Your task to perform on an android device: turn on bluetooth scan Image 0: 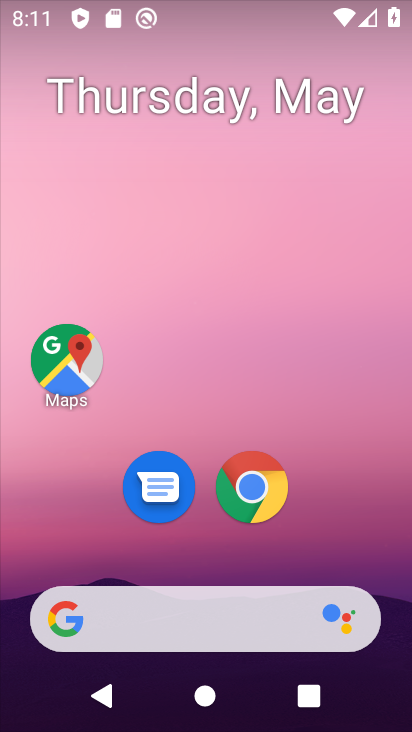
Step 0: drag from (362, 562) to (229, 1)
Your task to perform on an android device: turn on bluetooth scan Image 1: 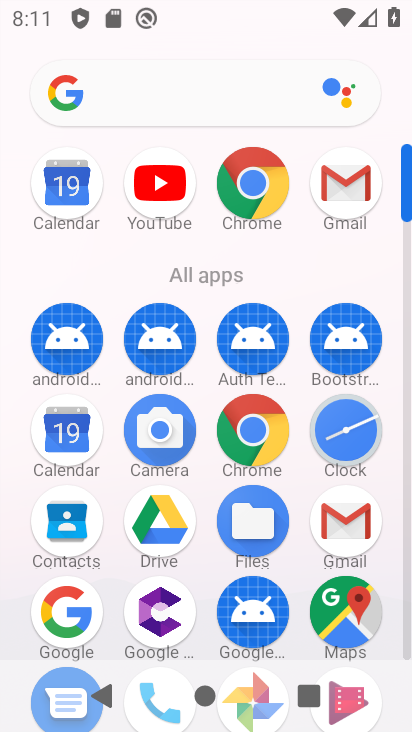
Step 1: drag from (203, 512) to (175, 7)
Your task to perform on an android device: turn on bluetooth scan Image 2: 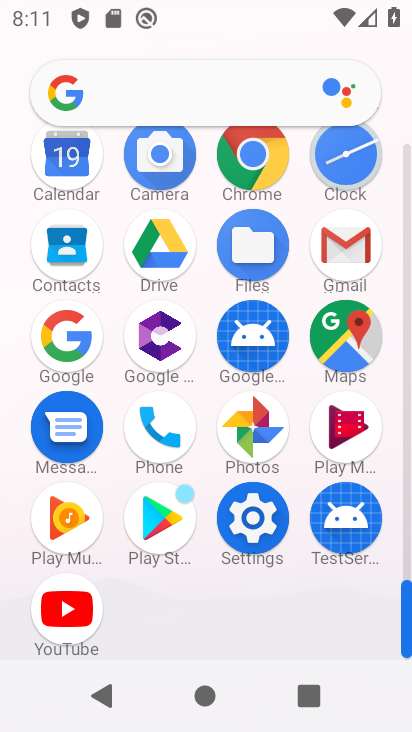
Step 2: click (270, 529)
Your task to perform on an android device: turn on bluetooth scan Image 3: 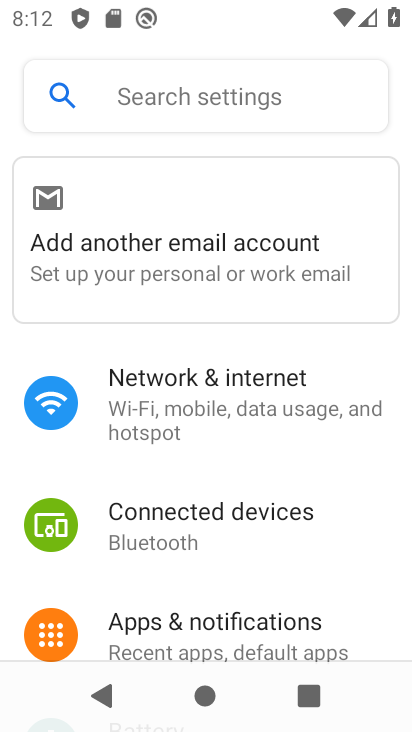
Step 3: drag from (251, 632) to (187, 341)
Your task to perform on an android device: turn on bluetooth scan Image 4: 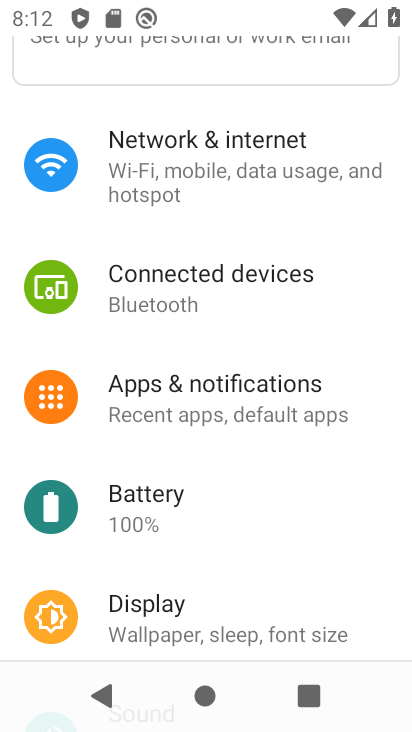
Step 4: drag from (205, 519) to (182, 333)
Your task to perform on an android device: turn on bluetooth scan Image 5: 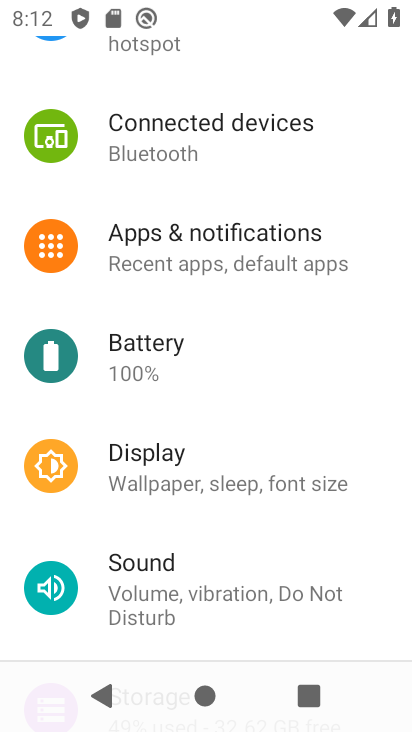
Step 5: drag from (216, 654) to (177, 144)
Your task to perform on an android device: turn on bluetooth scan Image 6: 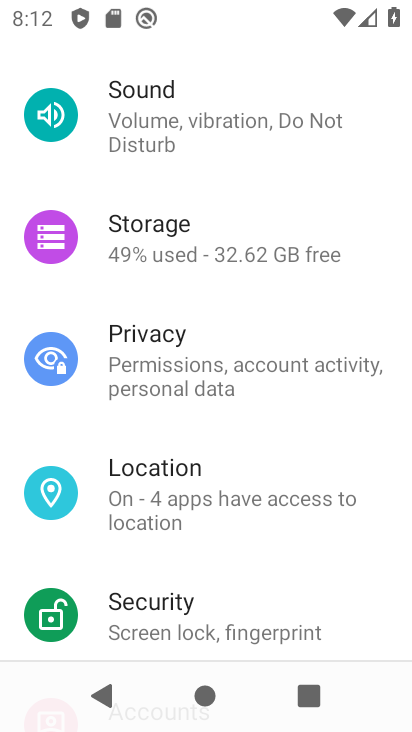
Step 6: click (178, 486)
Your task to perform on an android device: turn on bluetooth scan Image 7: 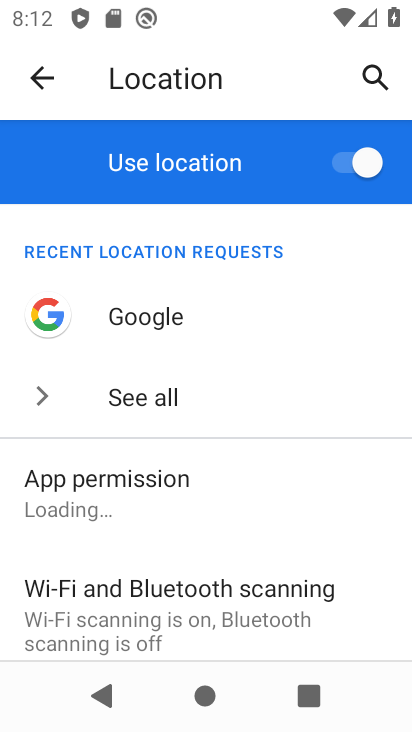
Step 7: drag from (224, 604) to (200, 241)
Your task to perform on an android device: turn on bluetooth scan Image 8: 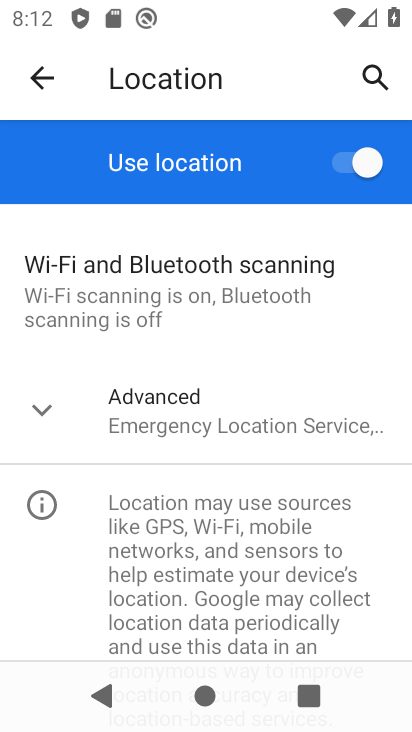
Step 8: drag from (260, 600) to (204, 145)
Your task to perform on an android device: turn on bluetooth scan Image 9: 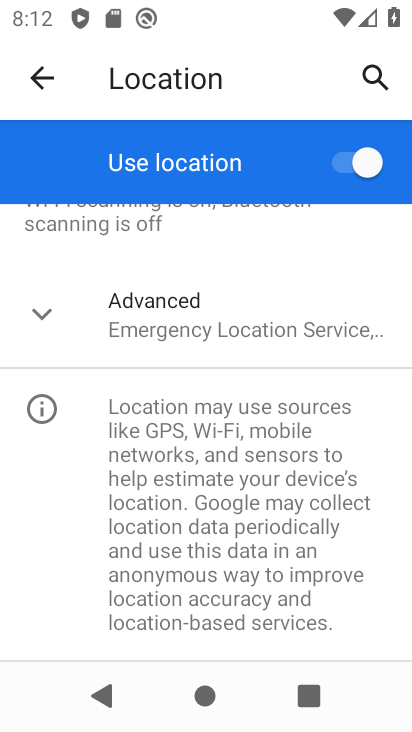
Step 9: drag from (240, 578) to (215, 326)
Your task to perform on an android device: turn on bluetooth scan Image 10: 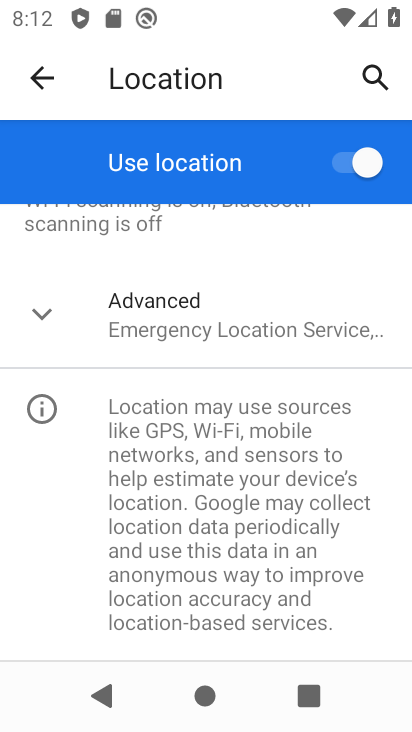
Step 10: click (174, 237)
Your task to perform on an android device: turn on bluetooth scan Image 11: 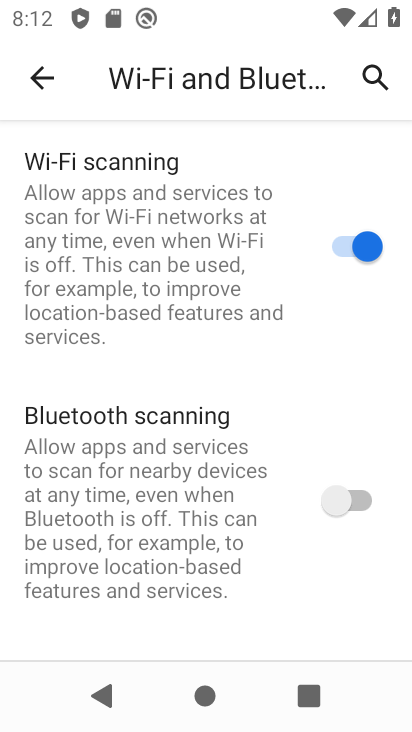
Step 11: click (340, 505)
Your task to perform on an android device: turn on bluetooth scan Image 12: 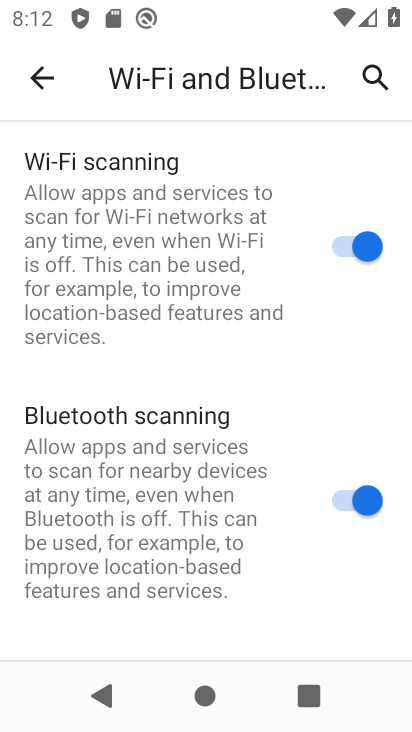
Step 12: task complete